Your task to perform on an android device: Open Google Chrome and click the shortcut for Amazon.com Image 0: 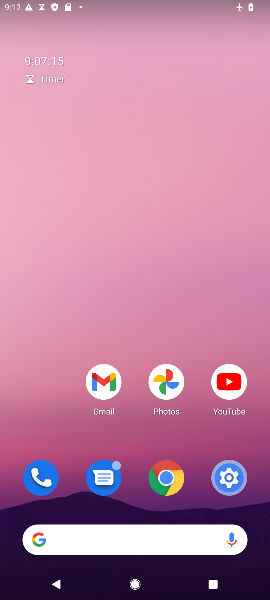
Step 0: click (167, 470)
Your task to perform on an android device: Open Google Chrome and click the shortcut for Amazon.com Image 1: 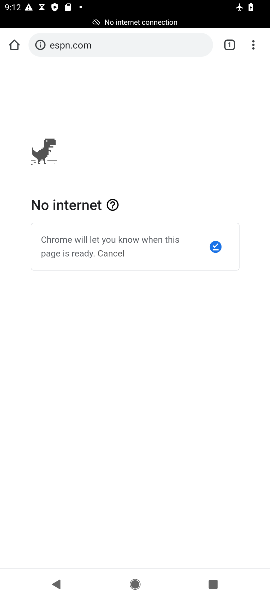
Step 1: click (227, 47)
Your task to perform on an android device: Open Google Chrome and click the shortcut for Amazon.com Image 2: 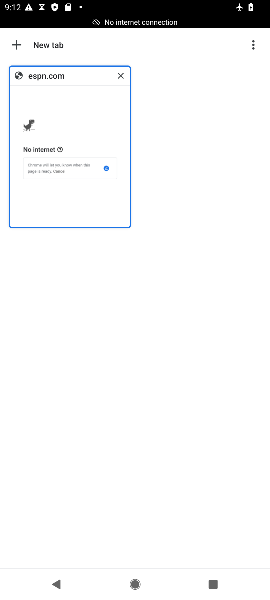
Step 2: click (31, 49)
Your task to perform on an android device: Open Google Chrome and click the shortcut for Amazon.com Image 3: 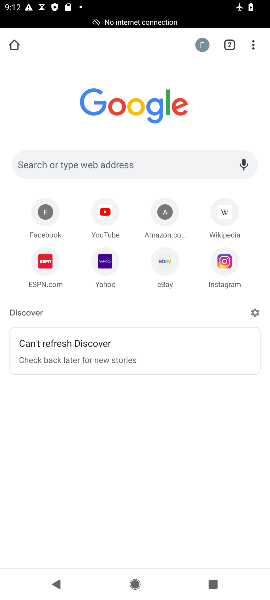
Step 3: click (169, 210)
Your task to perform on an android device: Open Google Chrome and click the shortcut for Amazon.com Image 4: 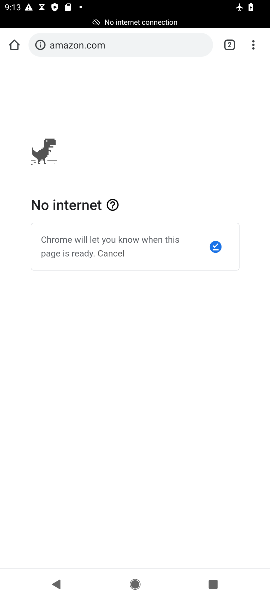
Step 4: task complete